Your task to perform on an android device: Go to Android settings Image 0: 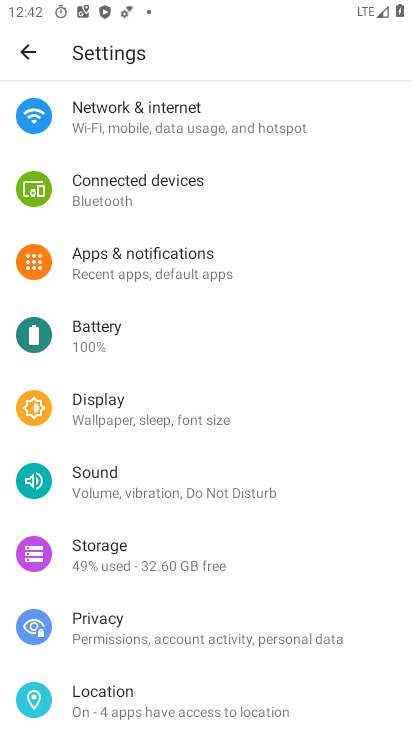
Step 0: task complete